Your task to perform on an android device: Open the calendar and show me this week's events? Image 0: 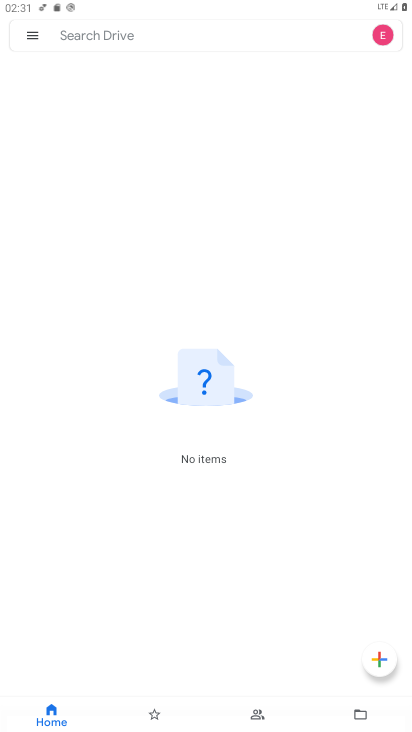
Step 0: press home button
Your task to perform on an android device: Open the calendar and show me this week's events? Image 1: 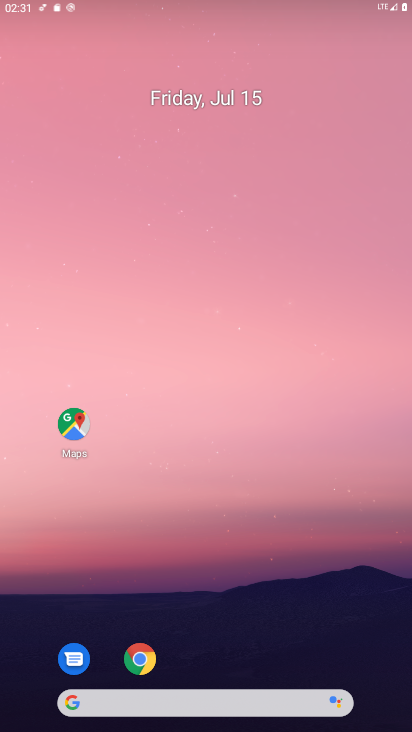
Step 1: drag from (175, 644) to (193, 282)
Your task to perform on an android device: Open the calendar and show me this week's events? Image 2: 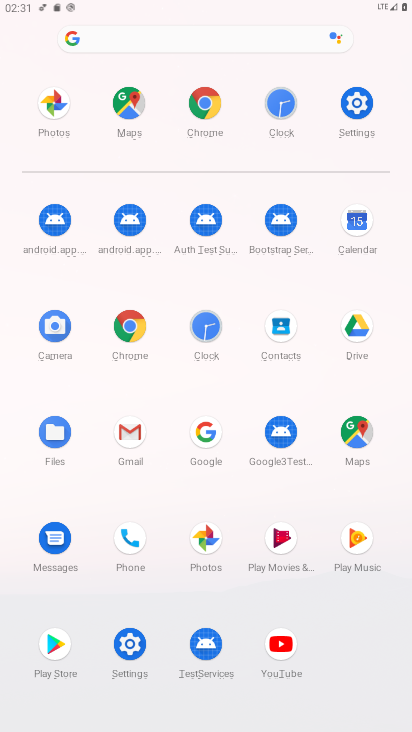
Step 2: click (356, 206)
Your task to perform on an android device: Open the calendar and show me this week's events? Image 3: 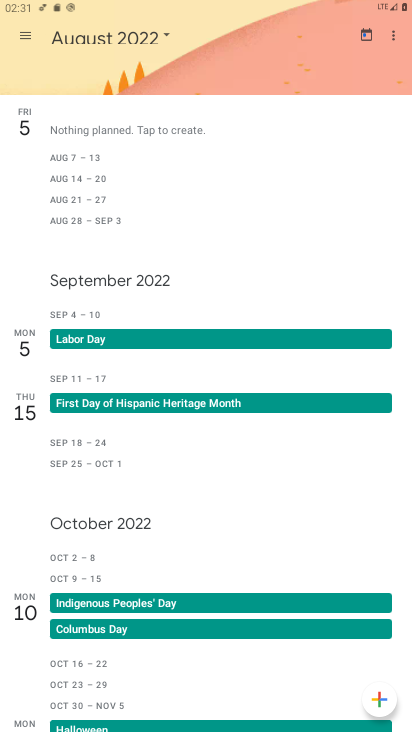
Step 3: click (33, 32)
Your task to perform on an android device: Open the calendar and show me this week's events? Image 4: 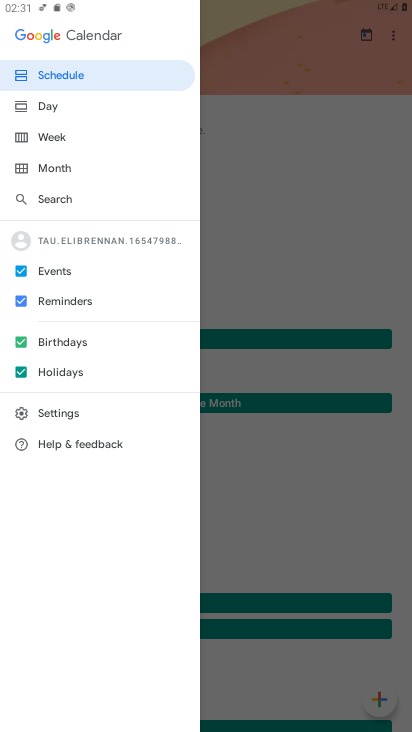
Step 4: click (60, 174)
Your task to perform on an android device: Open the calendar and show me this week's events? Image 5: 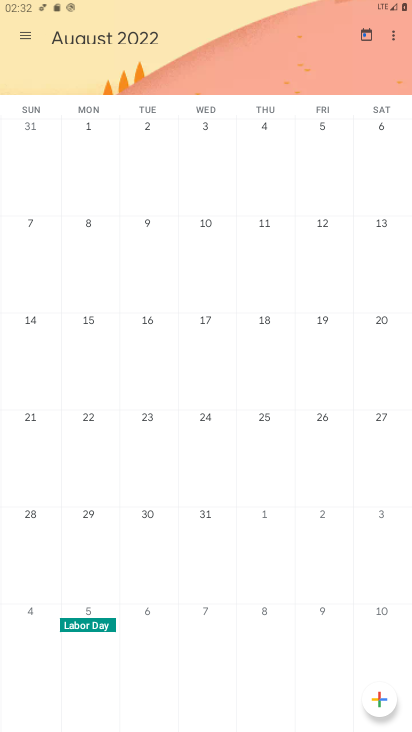
Step 5: drag from (69, 252) to (405, 374)
Your task to perform on an android device: Open the calendar and show me this week's events? Image 6: 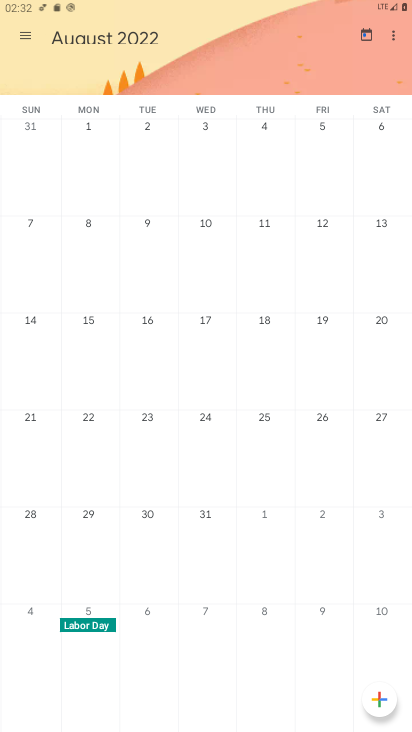
Step 6: drag from (38, 238) to (404, 322)
Your task to perform on an android device: Open the calendar and show me this week's events? Image 7: 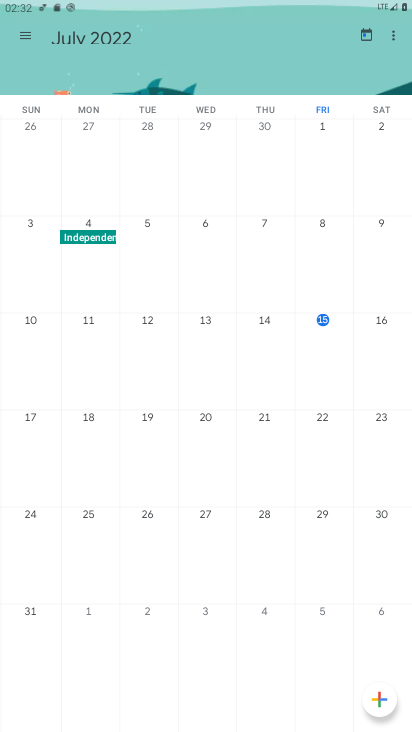
Step 7: click (28, 40)
Your task to perform on an android device: Open the calendar and show me this week's events? Image 8: 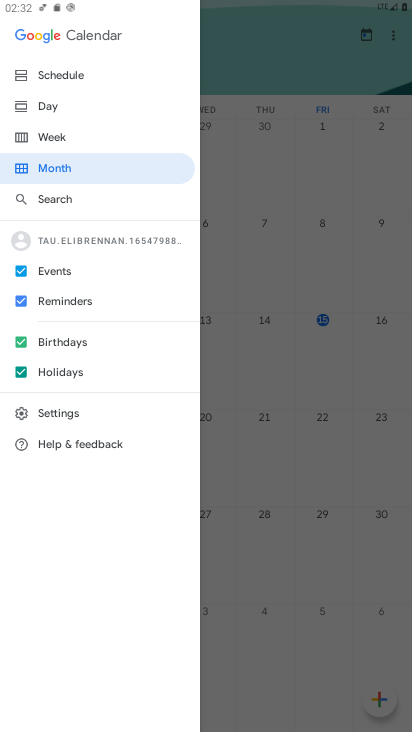
Step 8: click (21, 32)
Your task to perform on an android device: Open the calendar and show me this week's events? Image 9: 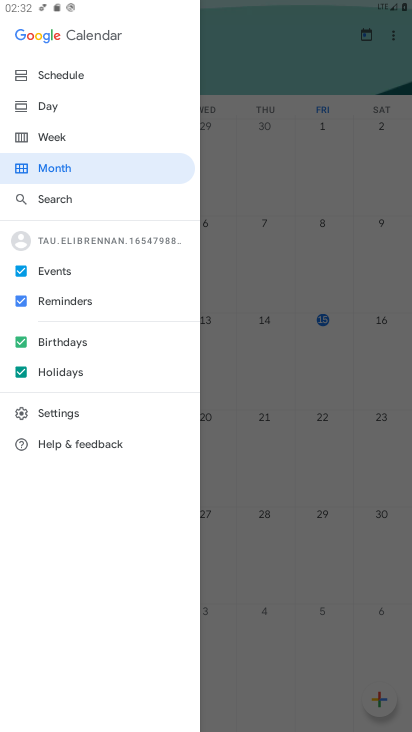
Step 9: click (76, 128)
Your task to perform on an android device: Open the calendar and show me this week's events? Image 10: 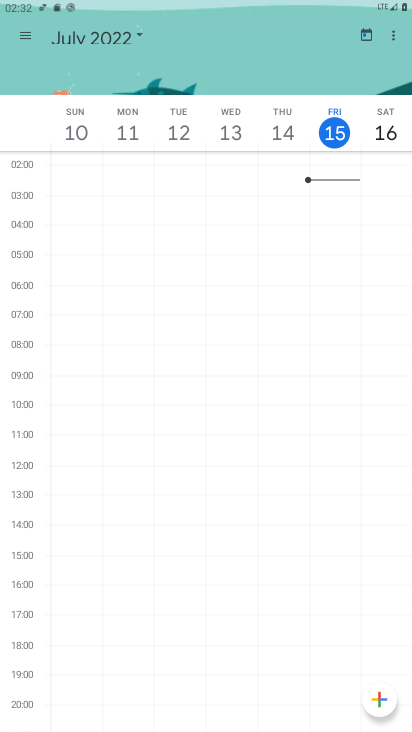
Step 10: task complete